Your task to perform on an android device: Set the phone to "Do not disturb". Image 0: 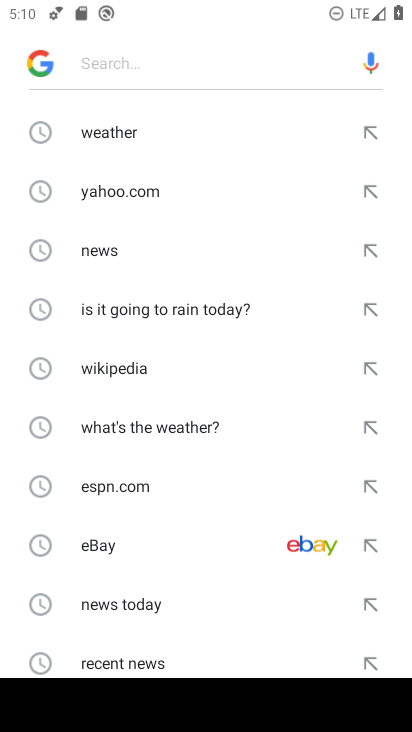
Step 0: press home button
Your task to perform on an android device: Set the phone to "Do not disturb". Image 1: 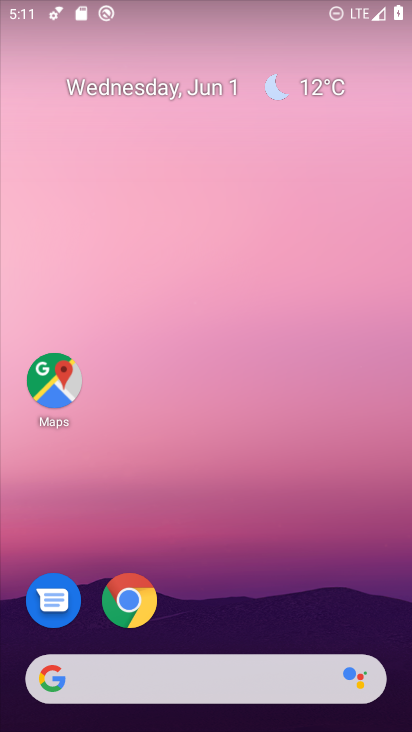
Step 1: drag from (364, 630) to (270, 25)
Your task to perform on an android device: Set the phone to "Do not disturb". Image 2: 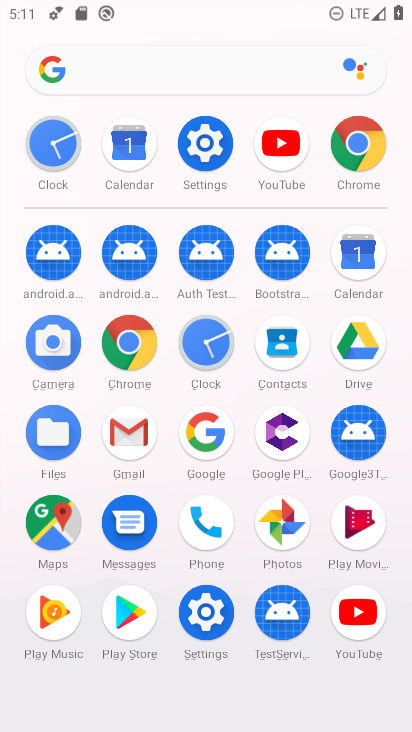
Step 2: click (202, 609)
Your task to perform on an android device: Set the phone to "Do not disturb". Image 3: 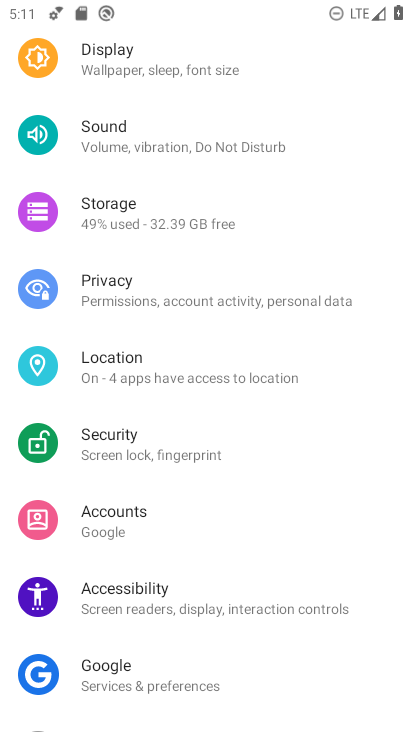
Step 3: click (131, 135)
Your task to perform on an android device: Set the phone to "Do not disturb". Image 4: 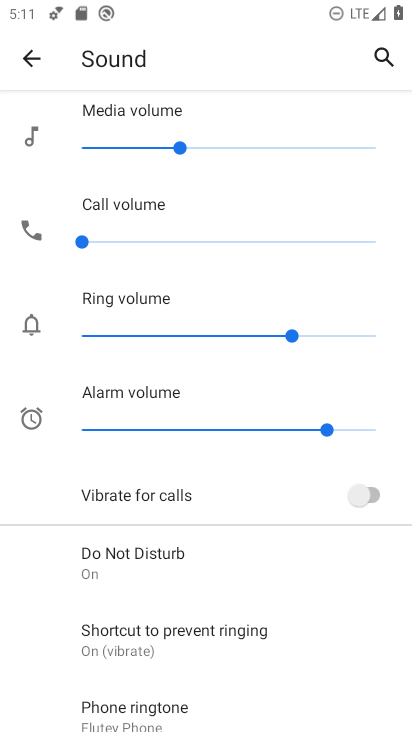
Step 4: click (106, 566)
Your task to perform on an android device: Set the phone to "Do not disturb". Image 5: 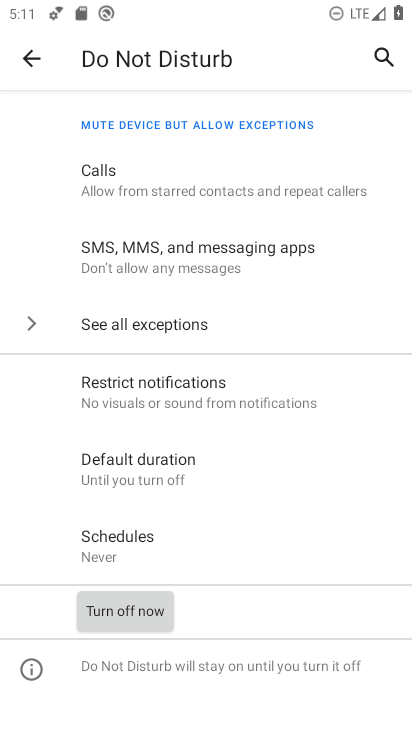
Step 5: task complete